Your task to perform on an android device: open app "DoorDash - Dasher" (install if not already installed) Image 0: 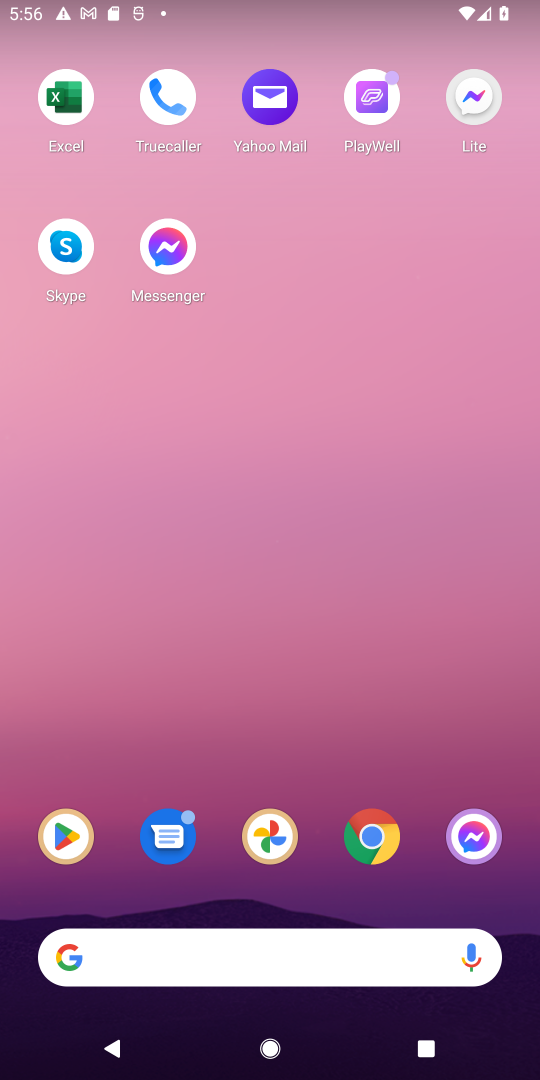
Step 0: press home button
Your task to perform on an android device: open app "DoorDash - Dasher" (install if not already installed) Image 1: 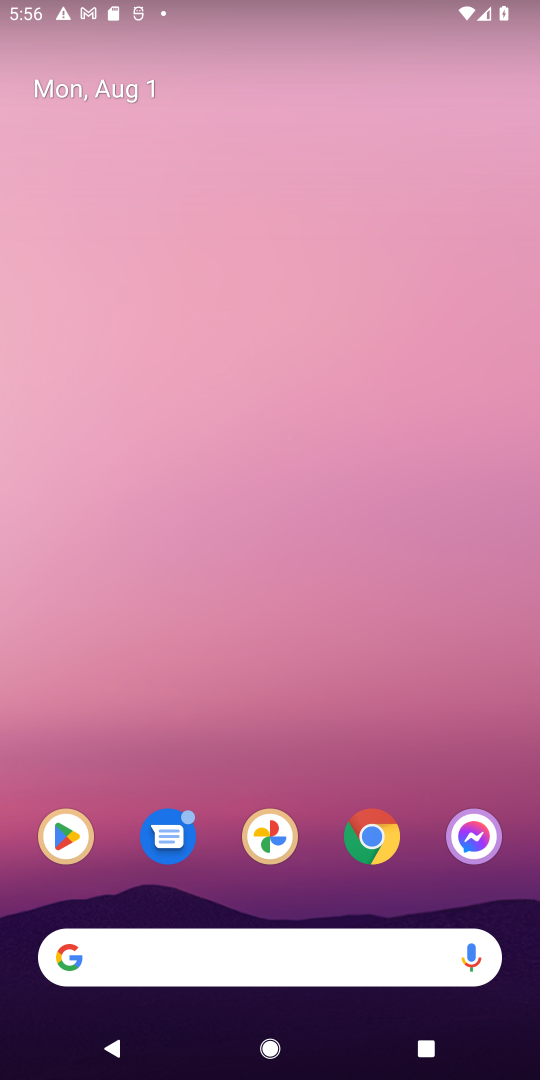
Step 1: click (68, 828)
Your task to perform on an android device: open app "DoorDash - Dasher" (install if not already installed) Image 2: 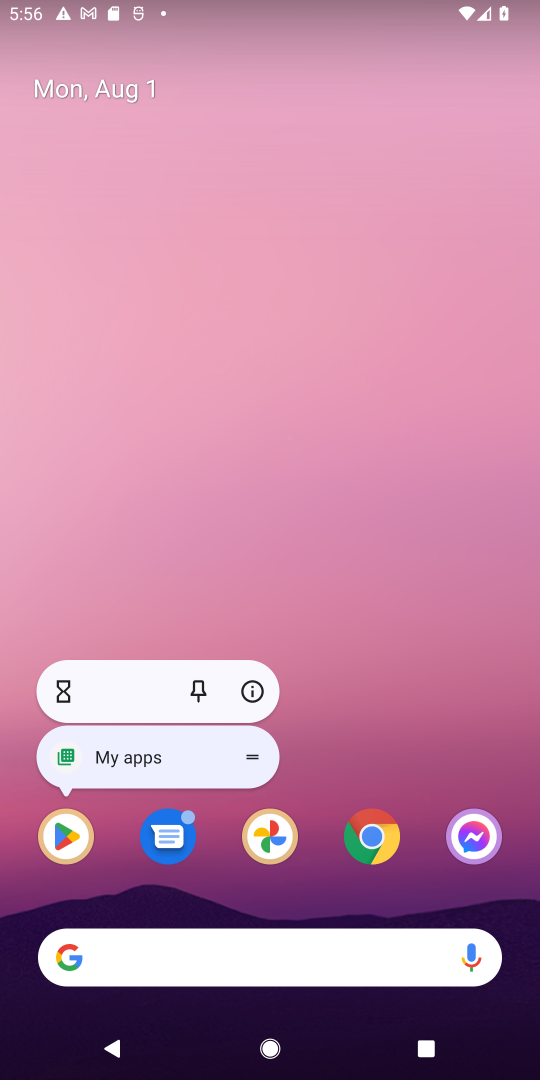
Step 2: click (68, 830)
Your task to perform on an android device: open app "DoorDash - Dasher" (install if not already installed) Image 3: 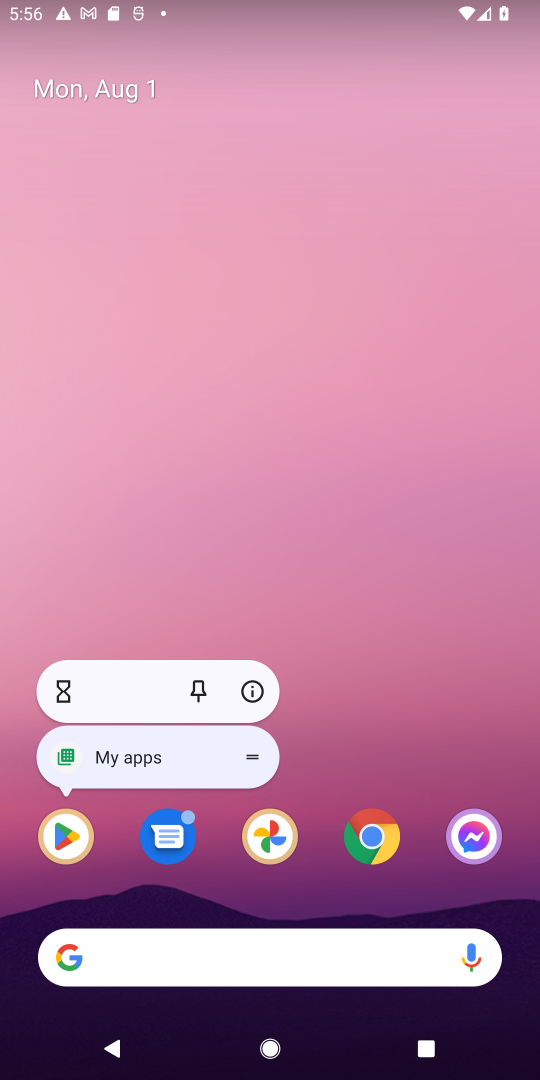
Step 3: click (60, 837)
Your task to perform on an android device: open app "DoorDash - Dasher" (install if not already installed) Image 4: 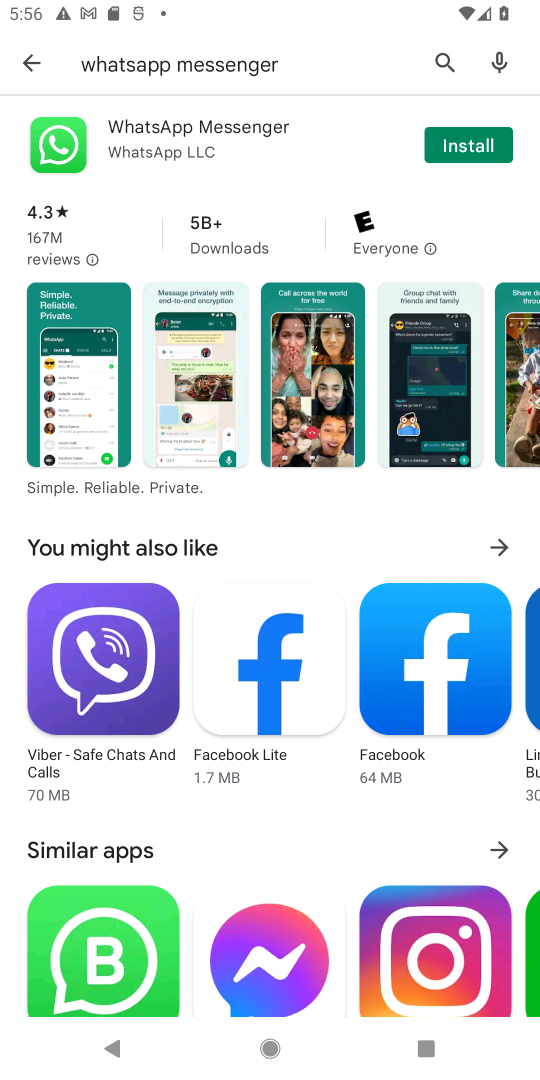
Step 4: click (439, 53)
Your task to perform on an android device: open app "DoorDash - Dasher" (install if not already installed) Image 5: 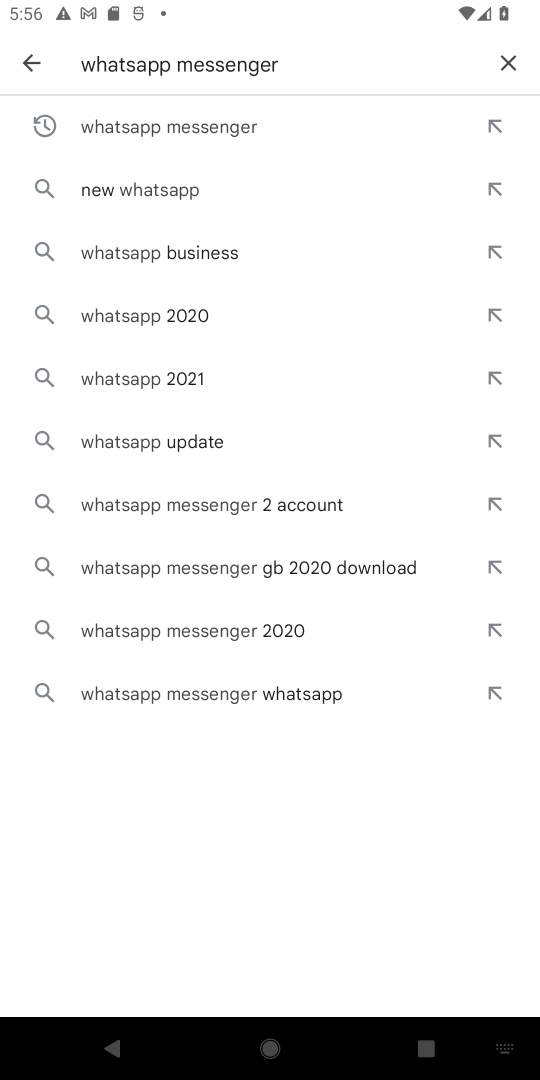
Step 5: click (499, 60)
Your task to perform on an android device: open app "DoorDash - Dasher" (install if not already installed) Image 6: 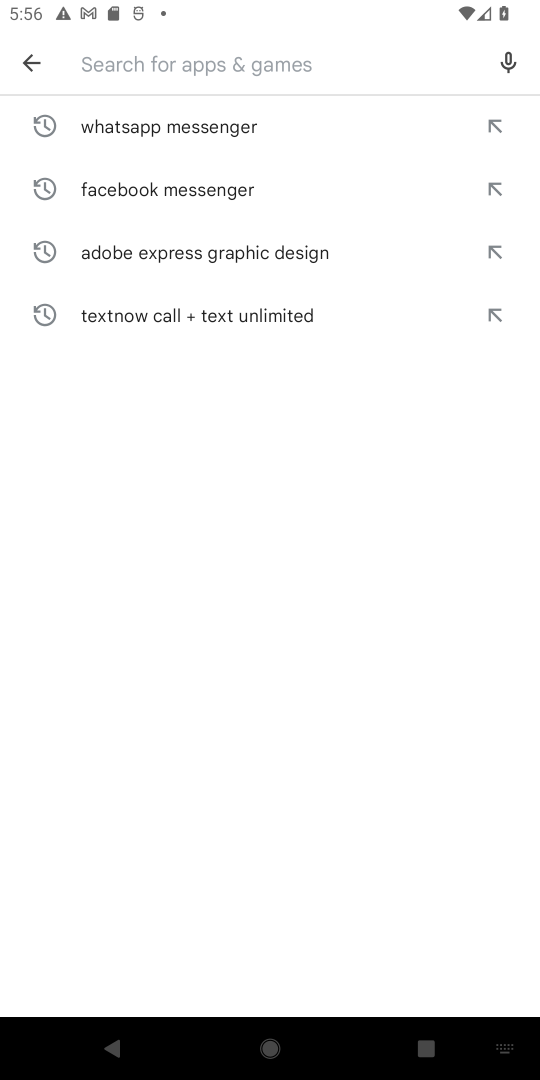
Step 6: type "DoorDash - Dasher"
Your task to perform on an android device: open app "DoorDash - Dasher" (install if not already installed) Image 7: 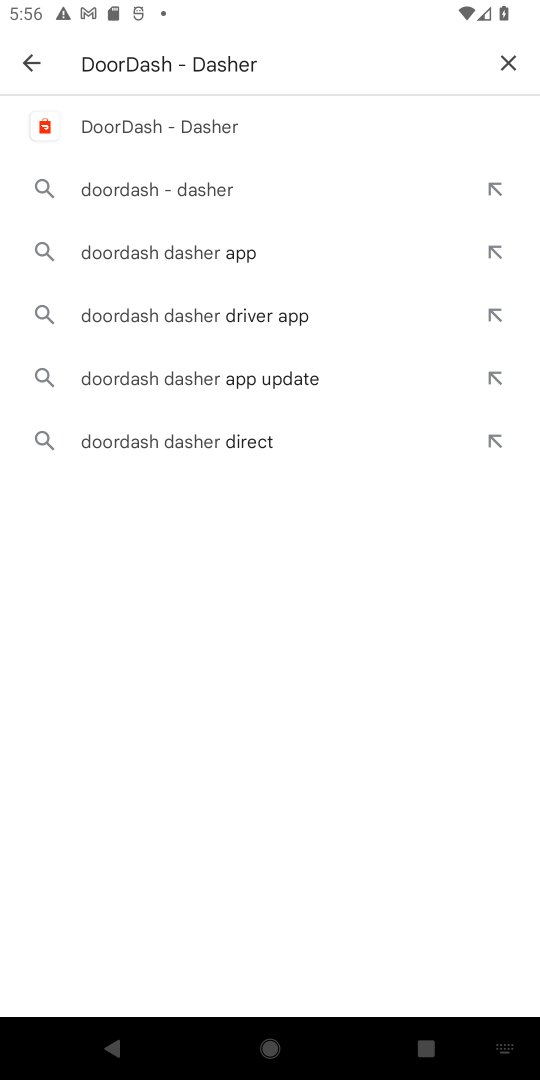
Step 7: click (170, 132)
Your task to perform on an android device: open app "DoorDash - Dasher" (install if not already installed) Image 8: 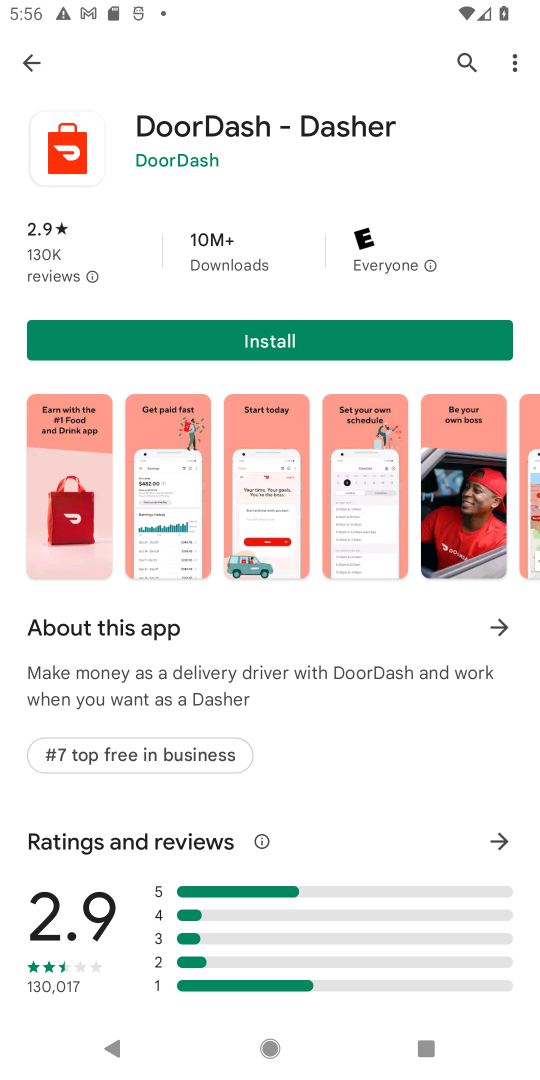
Step 8: click (261, 346)
Your task to perform on an android device: open app "DoorDash - Dasher" (install if not already installed) Image 9: 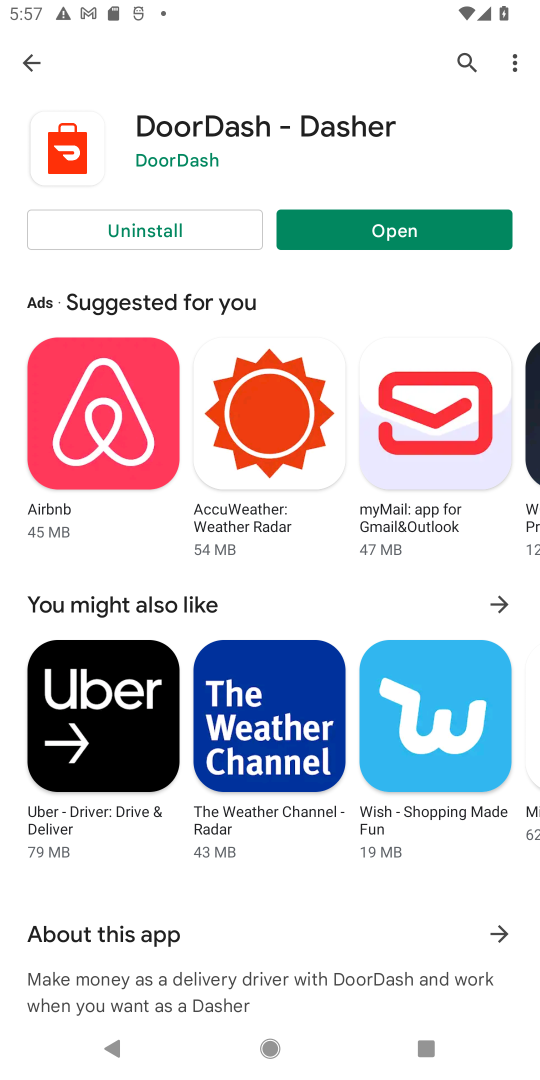
Step 9: click (445, 222)
Your task to perform on an android device: open app "DoorDash - Dasher" (install if not already installed) Image 10: 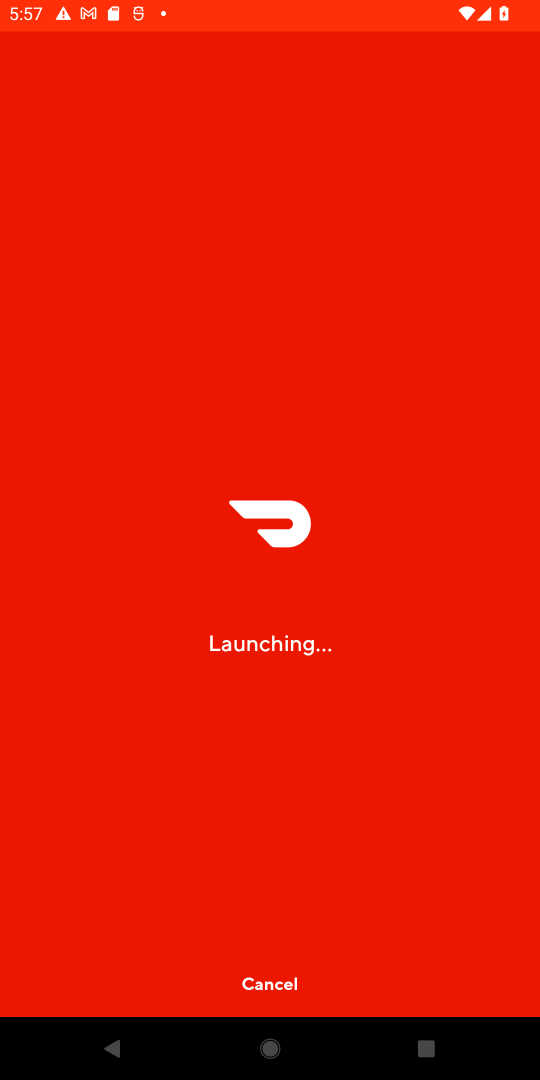
Step 10: task complete